Your task to perform on an android device: Go to Wikipedia Image 0: 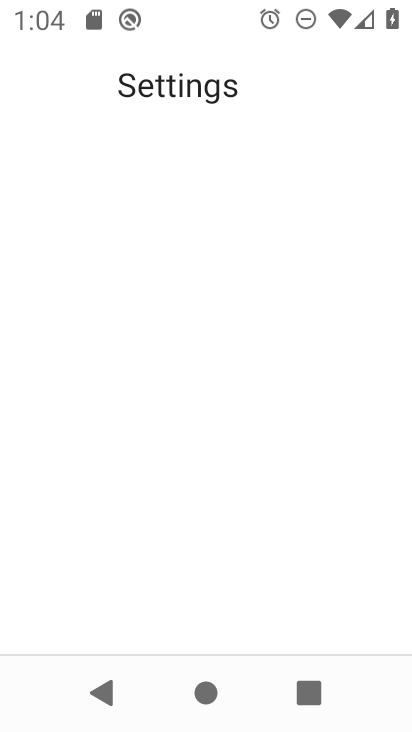
Step 0: drag from (181, 544) to (337, 70)
Your task to perform on an android device: Go to Wikipedia Image 1: 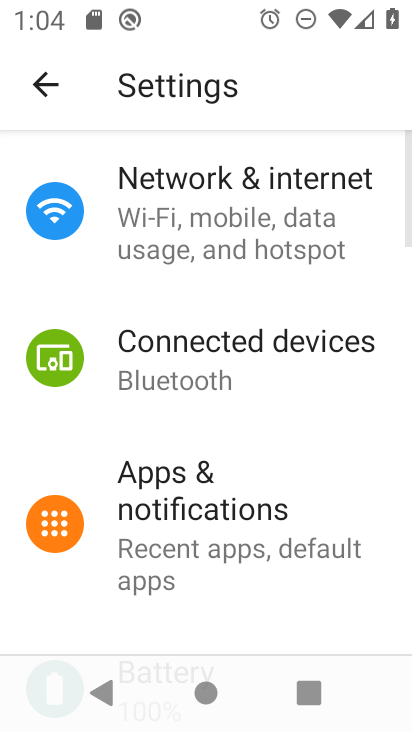
Step 1: press home button
Your task to perform on an android device: Go to Wikipedia Image 2: 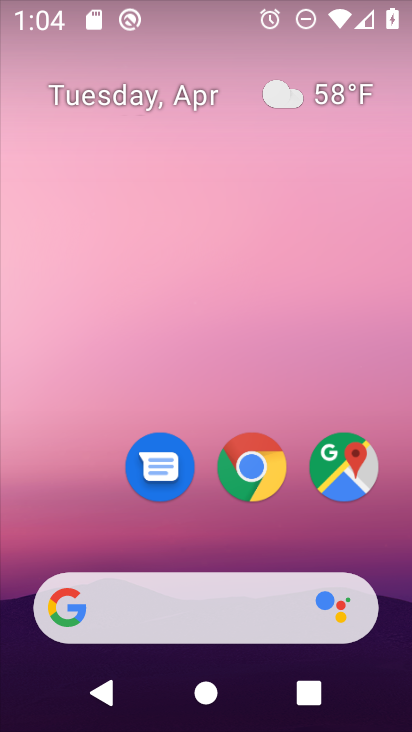
Step 2: click (267, 454)
Your task to perform on an android device: Go to Wikipedia Image 3: 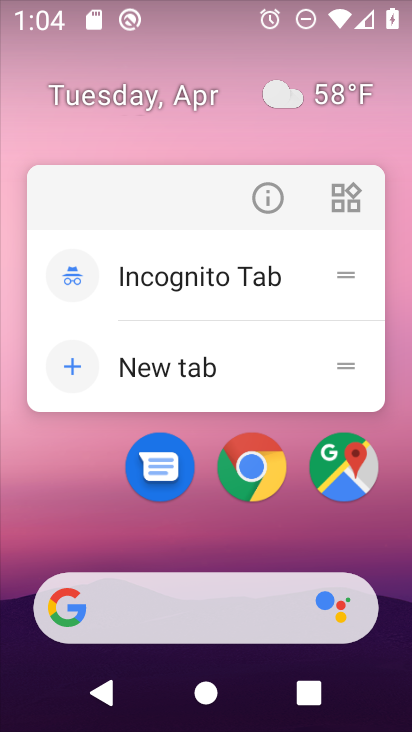
Step 3: click (206, 396)
Your task to perform on an android device: Go to Wikipedia Image 4: 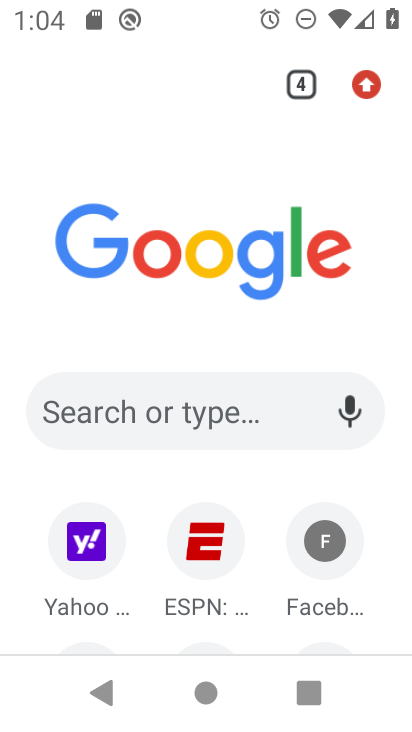
Step 4: drag from (142, 578) to (180, 3)
Your task to perform on an android device: Go to Wikipedia Image 5: 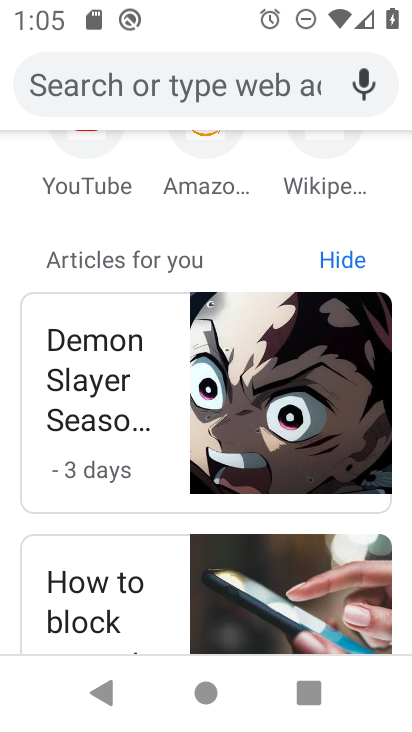
Step 5: click (313, 146)
Your task to perform on an android device: Go to Wikipedia Image 6: 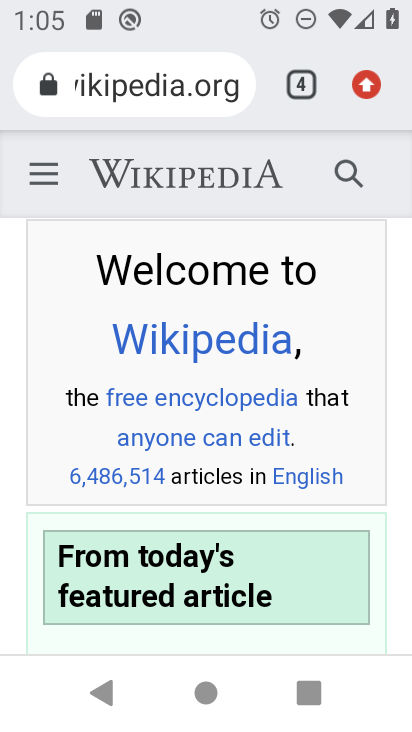
Step 6: task complete